Your task to perform on an android device: delete a single message in the gmail app Image 0: 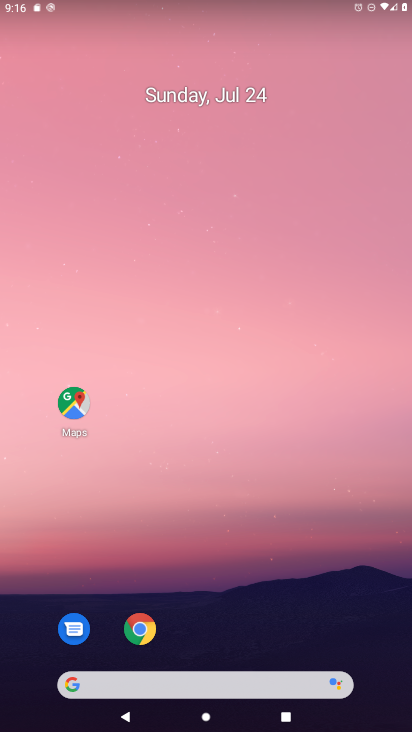
Step 0: drag from (375, 635) to (149, 18)
Your task to perform on an android device: delete a single message in the gmail app Image 1: 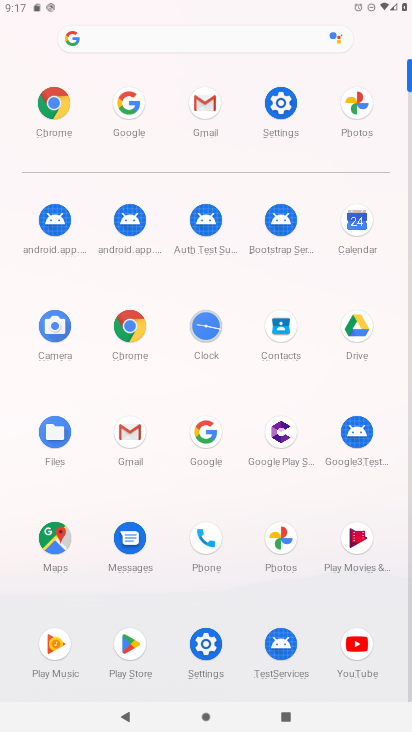
Step 1: click (128, 436)
Your task to perform on an android device: delete a single message in the gmail app Image 2: 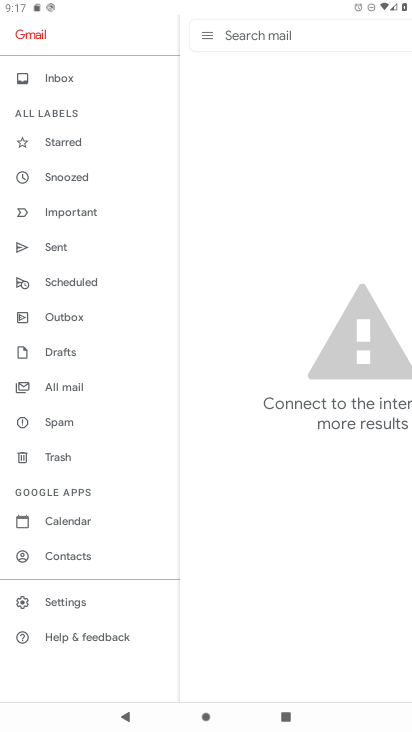
Step 2: click (30, 82)
Your task to perform on an android device: delete a single message in the gmail app Image 3: 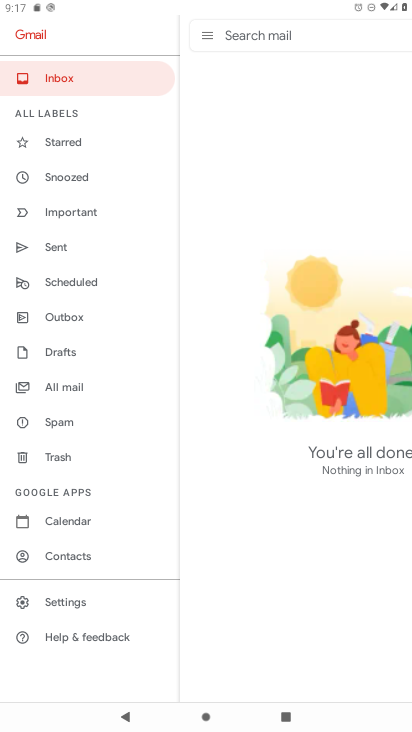
Step 3: task complete